Your task to perform on an android device: Open settings on Google Maps Image 0: 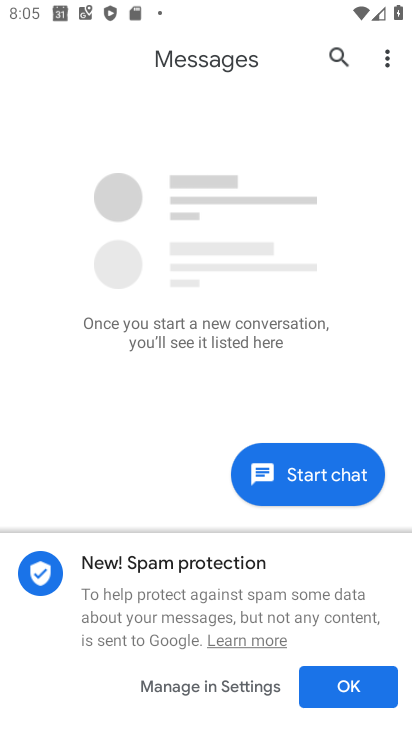
Step 0: press home button
Your task to perform on an android device: Open settings on Google Maps Image 1: 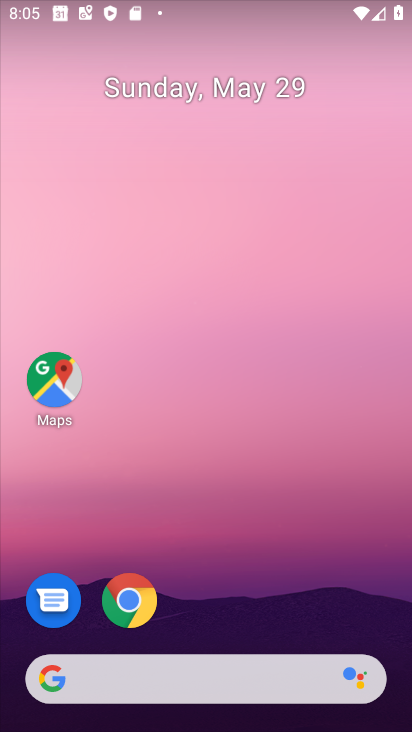
Step 1: drag from (294, 574) to (291, 187)
Your task to perform on an android device: Open settings on Google Maps Image 2: 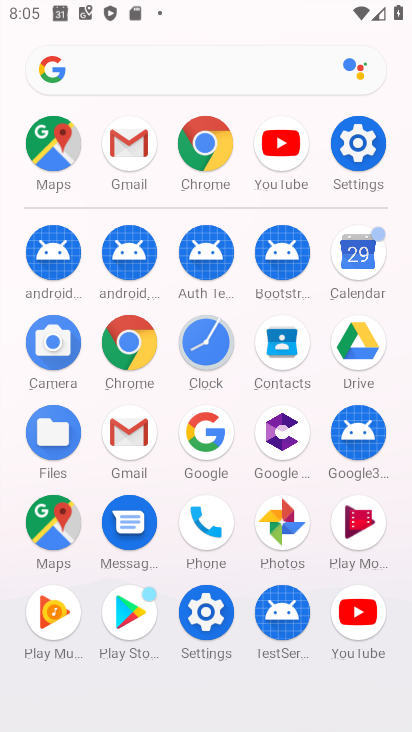
Step 2: click (56, 547)
Your task to perform on an android device: Open settings on Google Maps Image 3: 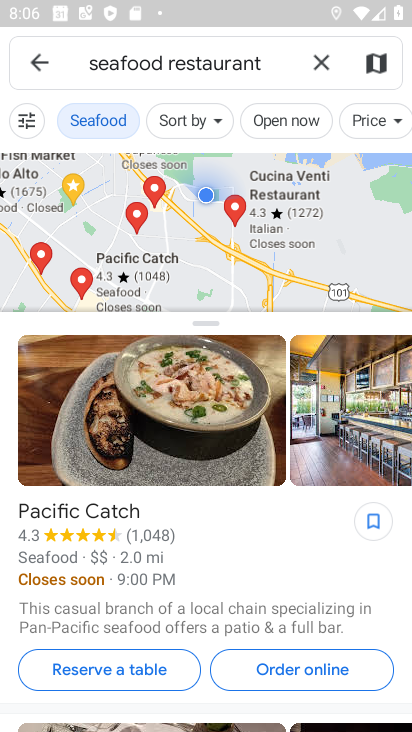
Step 3: click (37, 63)
Your task to perform on an android device: Open settings on Google Maps Image 4: 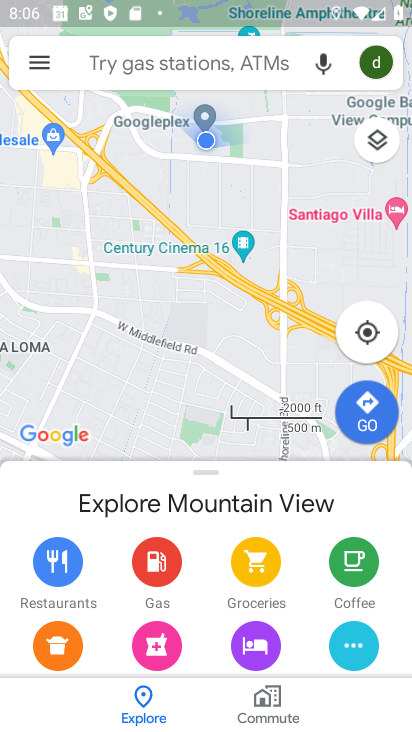
Step 4: click (27, 65)
Your task to perform on an android device: Open settings on Google Maps Image 5: 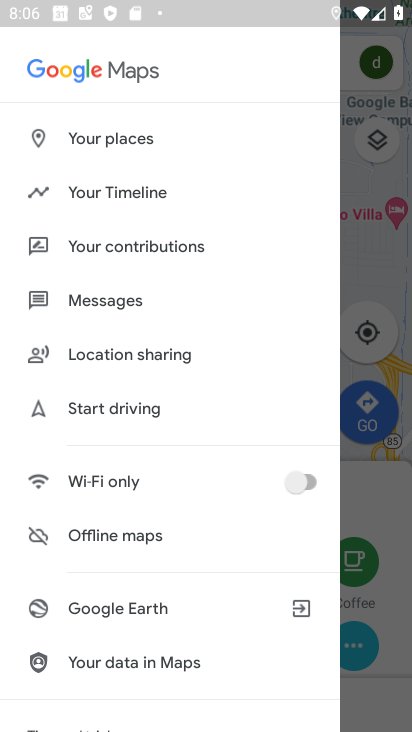
Step 5: click (162, 183)
Your task to perform on an android device: Open settings on Google Maps Image 6: 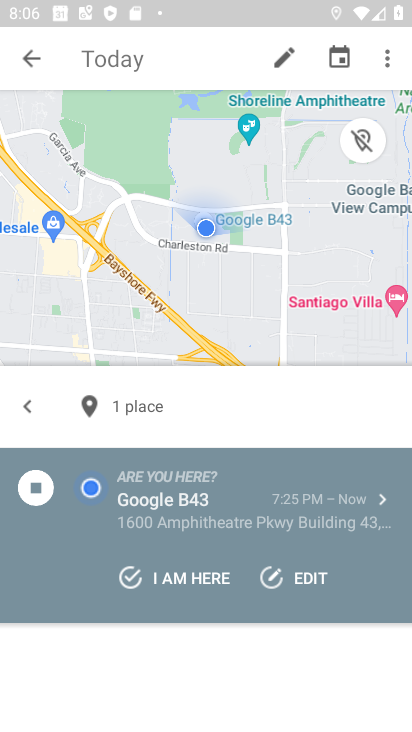
Step 6: task complete